Your task to perform on an android device: change text size in settings app Image 0: 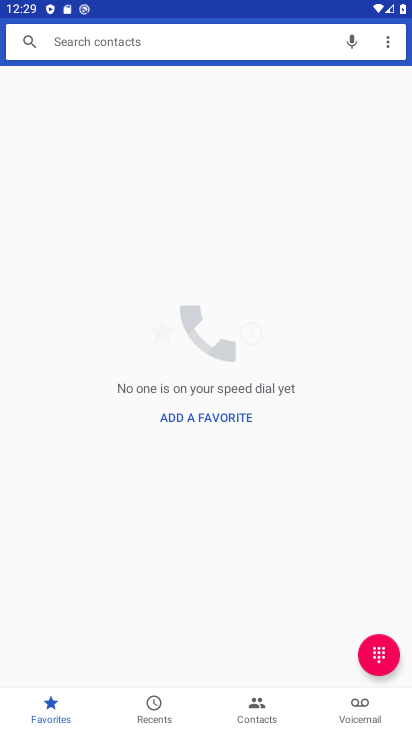
Step 0: press home button
Your task to perform on an android device: change text size in settings app Image 1: 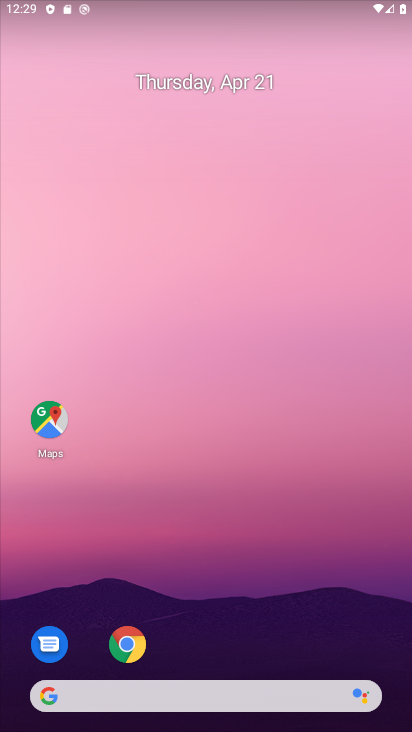
Step 1: drag from (233, 647) to (301, 144)
Your task to perform on an android device: change text size in settings app Image 2: 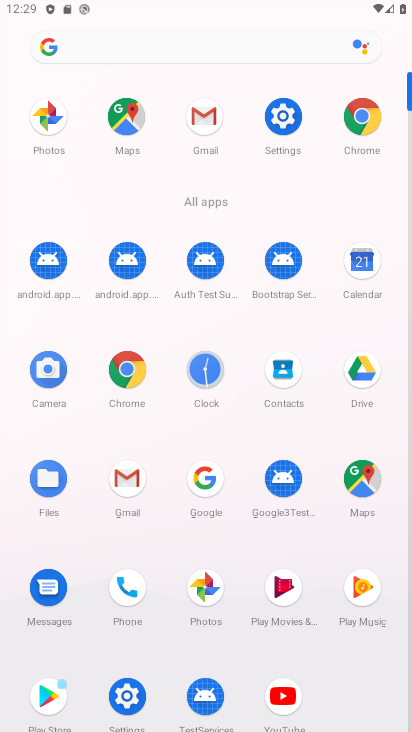
Step 2: click (288, 120)
Your task to perform on an android device: change text size in settings app Image 3: 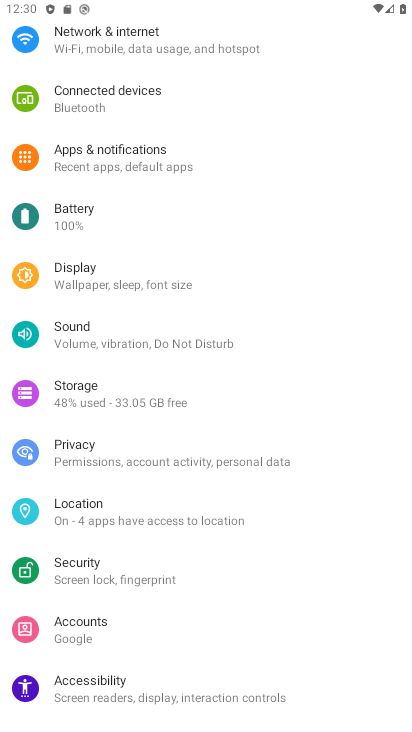
Step 3: click (172, 280)
Your task to perform on an android device: change text size in settings app Image 4: 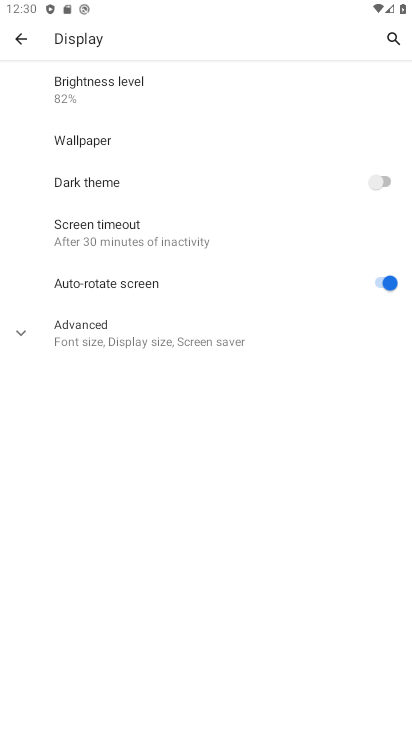
Step 4: click (186, 345)
Your task to perform on an android device: change text size in settings app Image 5: 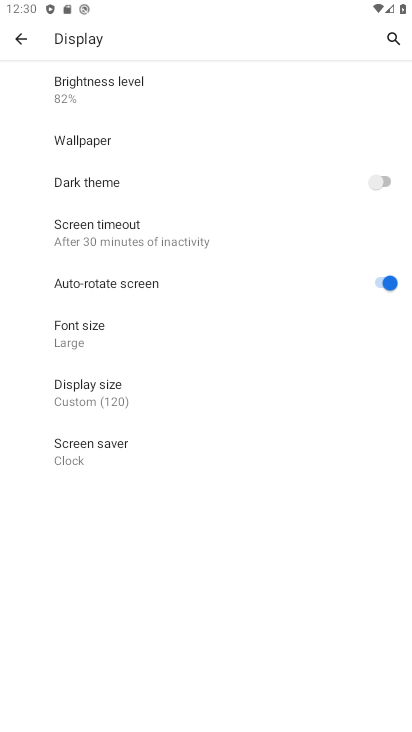
Step 5: click (168, 321)
Your task to perform on an android device: change text size in settings app Image 6: 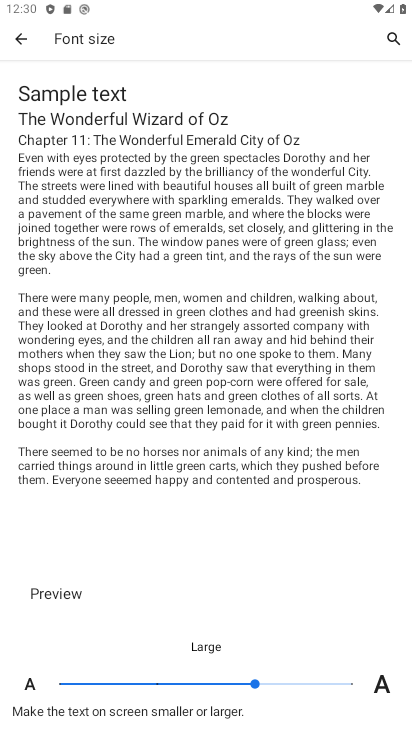
Step 6: task complete